Your task to perform on an android device: Add "usb-c to usb-a" to the cart on target, then select checkout. Image 0: 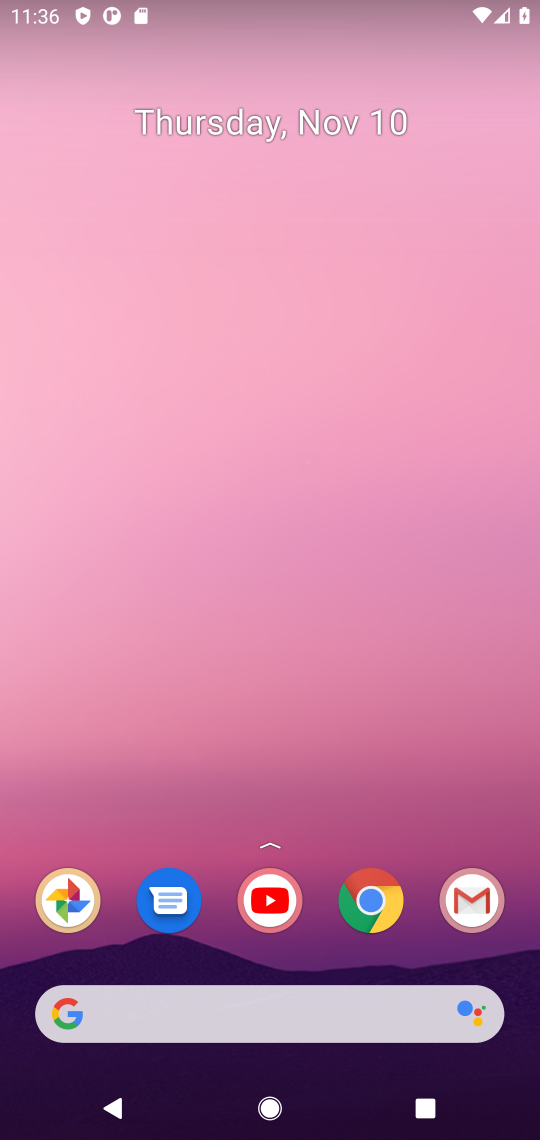
Step 0: click (365, 897)
Your task to perform on an android device: Add "usb-c to usb-a" to the cart on target, then select checkout. Image 1: 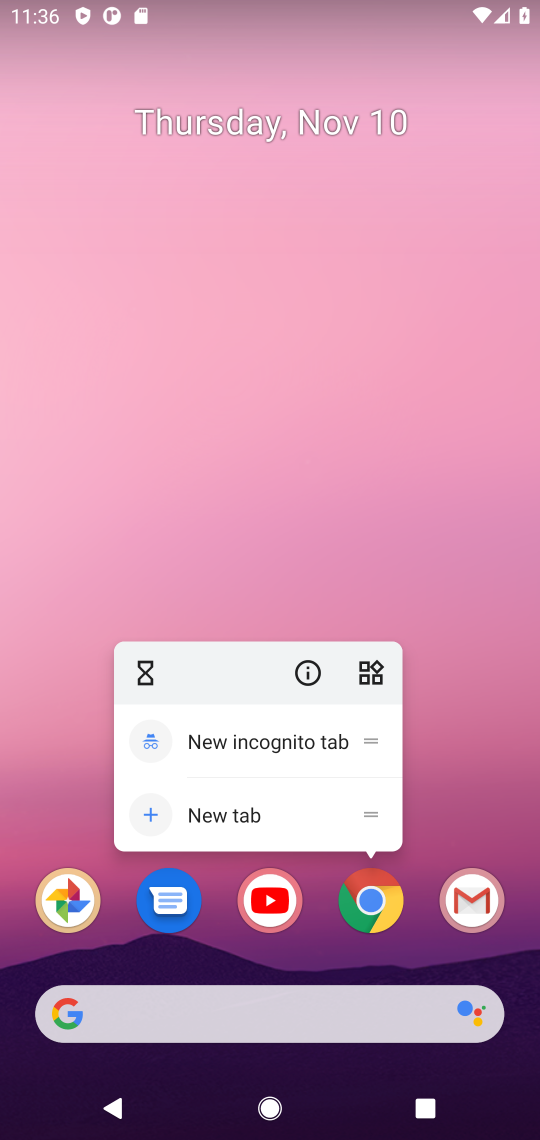
Step 1: click (365, 902)
Your task to perform on an android device: Add "usb-c to usb-a" to the cart on target, then select checkout. Image 2: 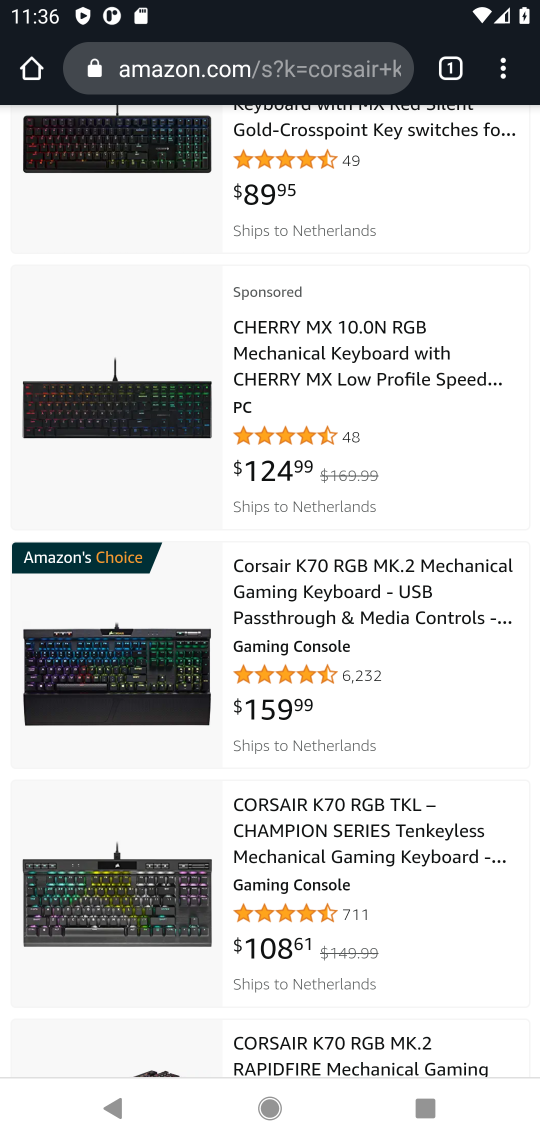
Step 2: click (313, 69)
Your task to perform on an android device: Add "usb-c to usb-a" to the cart on target, then select checkout. Image 3: 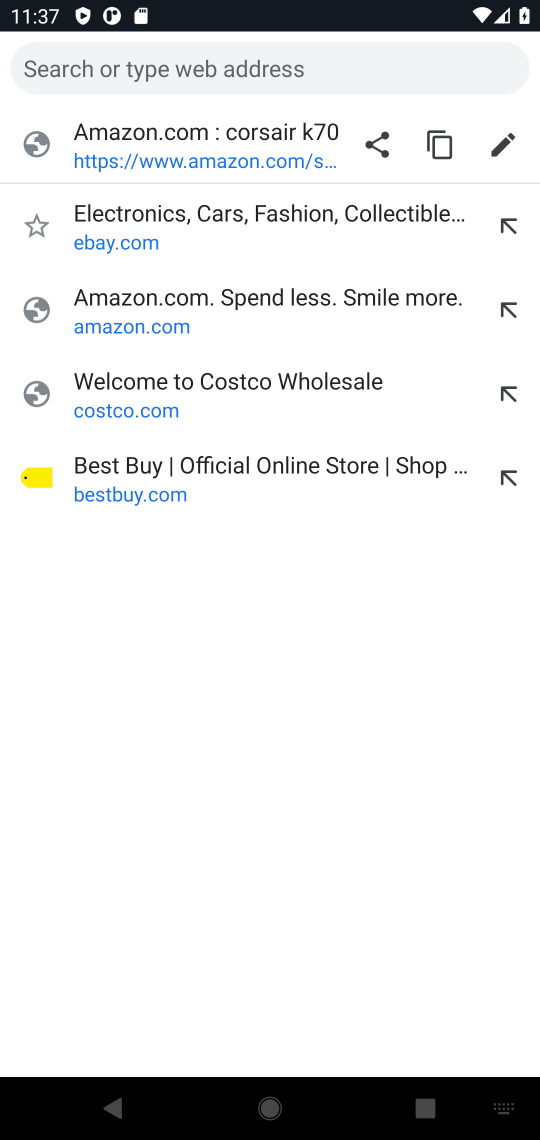
Step 3: type "target"
Your task to perform on an android device: Add "usb-c to usb-a" to the cart on target, then select checkout. Image 4: 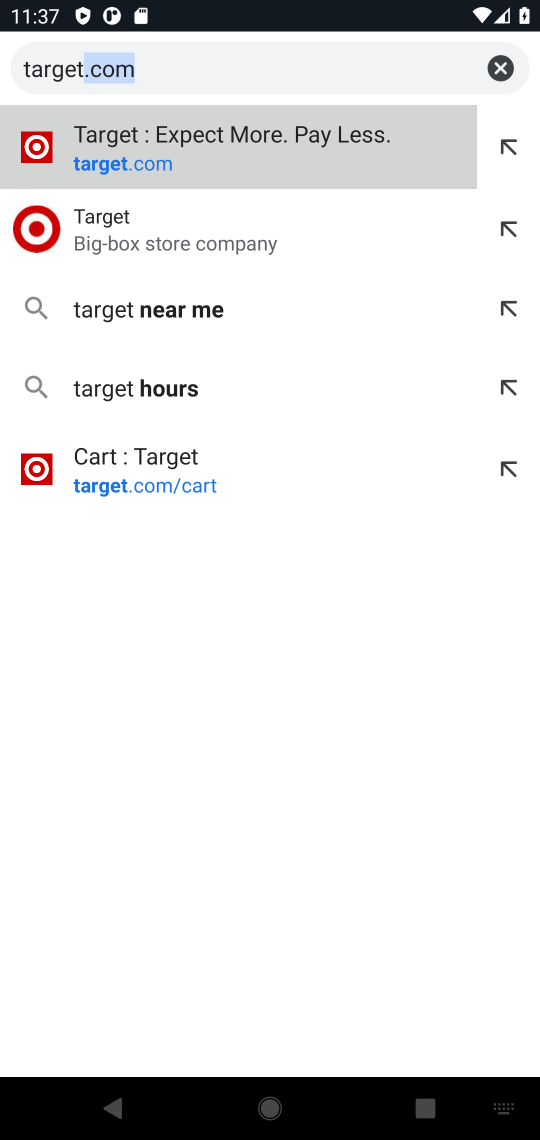
Step 4: press enter
Your task to perform on an android device: Add "usb-c to usb-a" to the cart on target, then select checkout. Image 5: 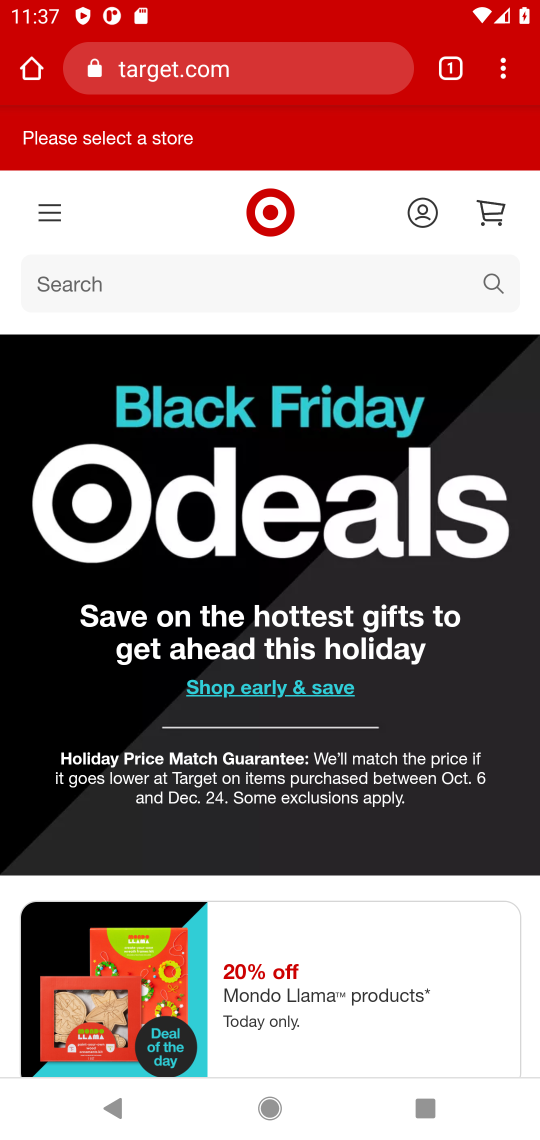
Step 5: click (137, 284)
Your task to perform on an android device: Add "usb-c to usb-a" to the cart on target, then select checkout. Image 6: 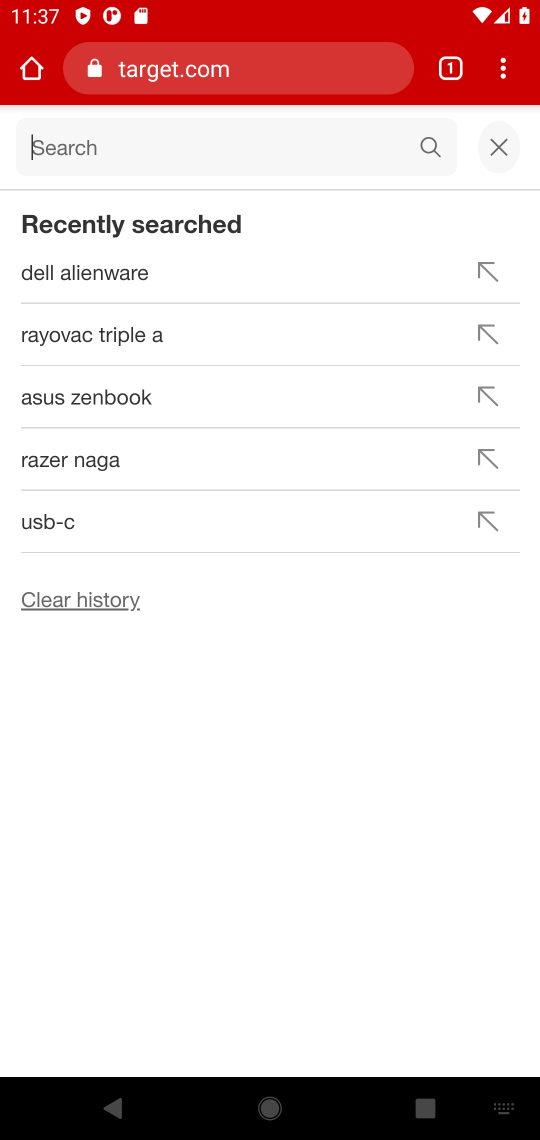
Step 6: type "usb-c to usb-a"
Your task to perform on an android device: Add "usb-c to usb-a" to the cart on target, then select checkout. Image 7: 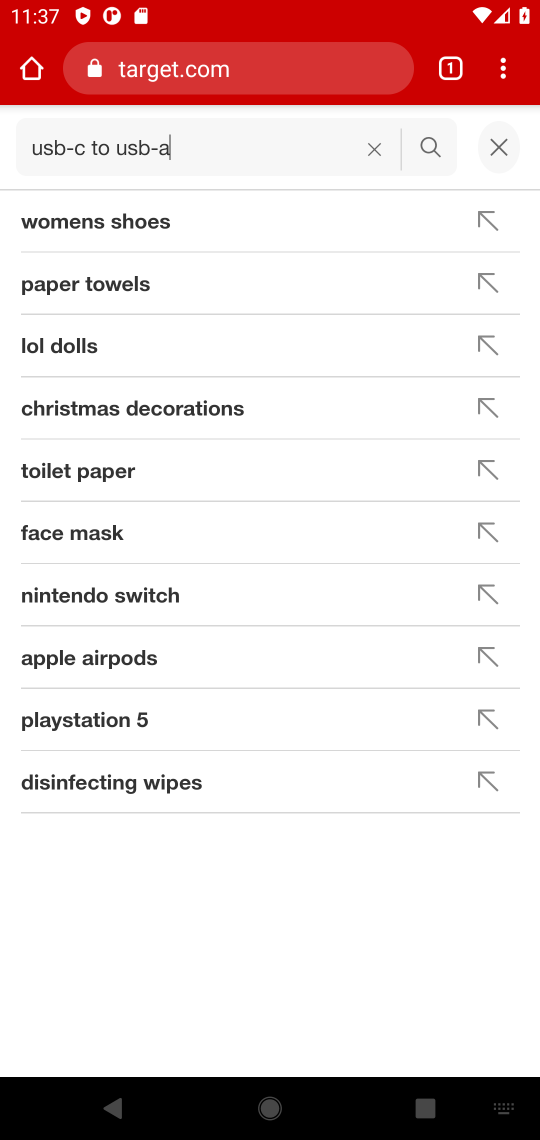
Step 7: press enter
Your task to perform on an android device: Add "usb-c to usb-a" to the cart on target, then select checkout. Image 8: 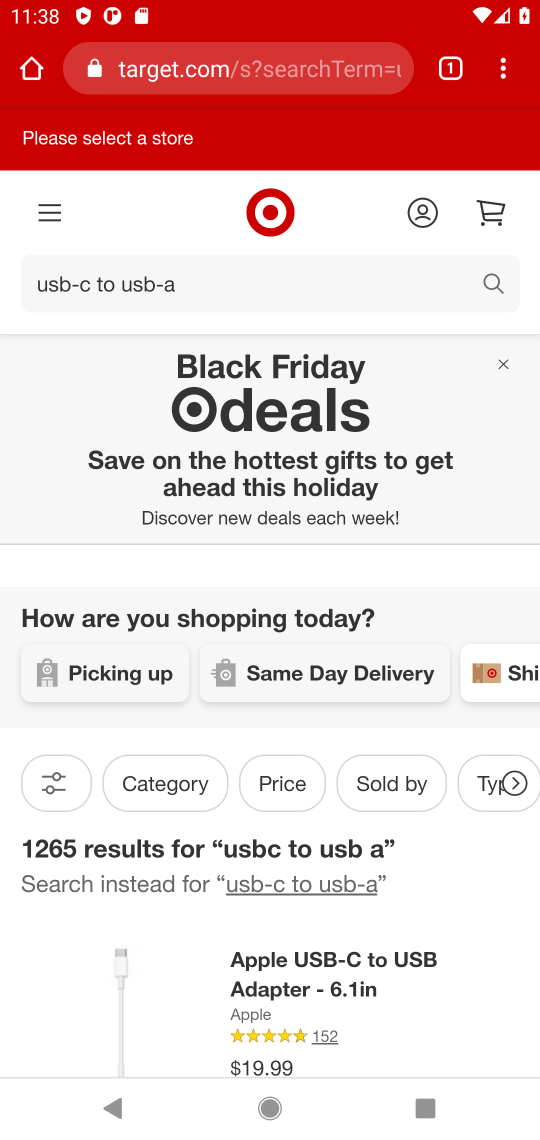
Step 8: task complete